Your task to perform on an android device: clear all cookies in the chrome app Image 0: 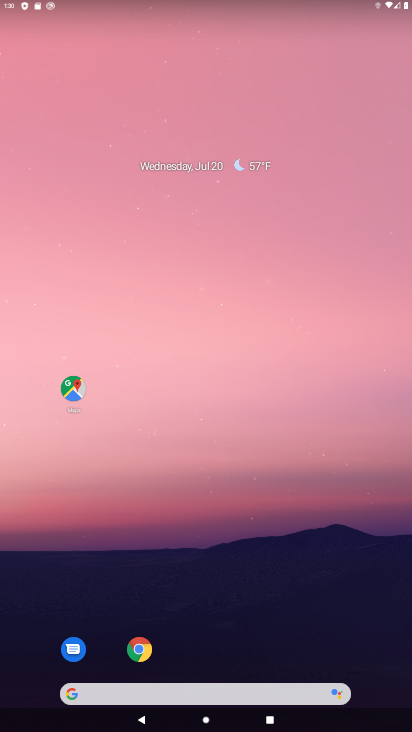
Step 0: click (149, 644)
Your task to perform on an android device: clear all cookies in the chrome app Image 1: 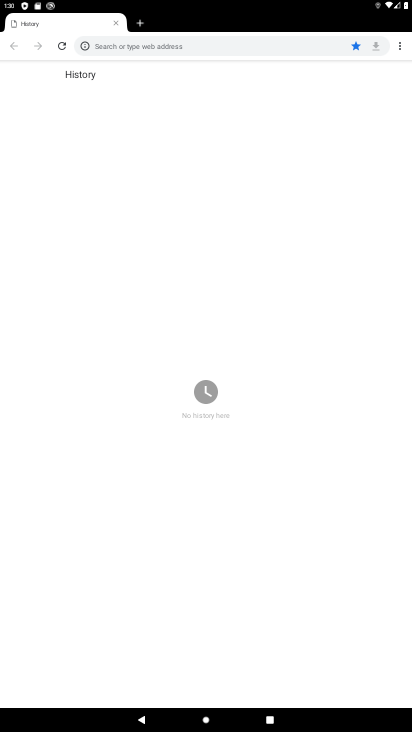
Step 1: click (403, 55)
Your task to perform on an android device: clear all cookies in the chrome app Image 2: 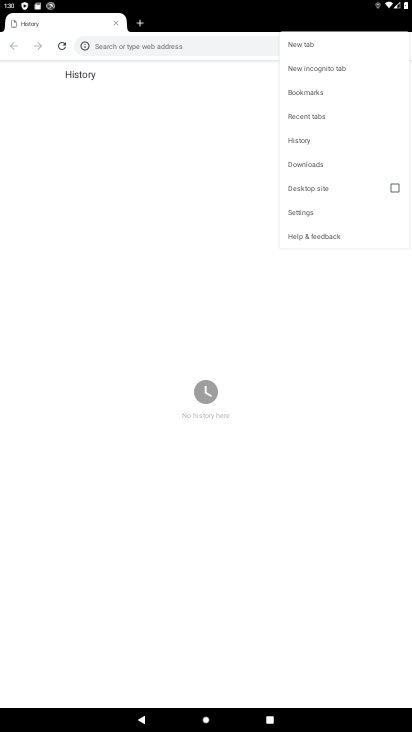
Step 2: click (318, 145)
Your task to perform on an android device: clear all cookies in the chrome app Image 3: 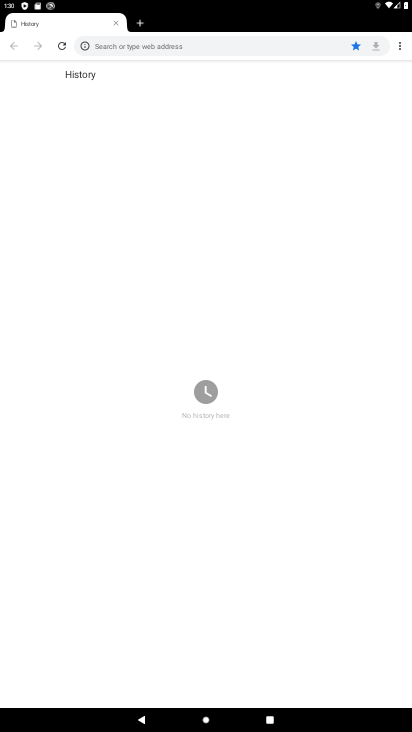
Step 3: task complete